Your task to perform on an android device: Open privacy settings Image 0: 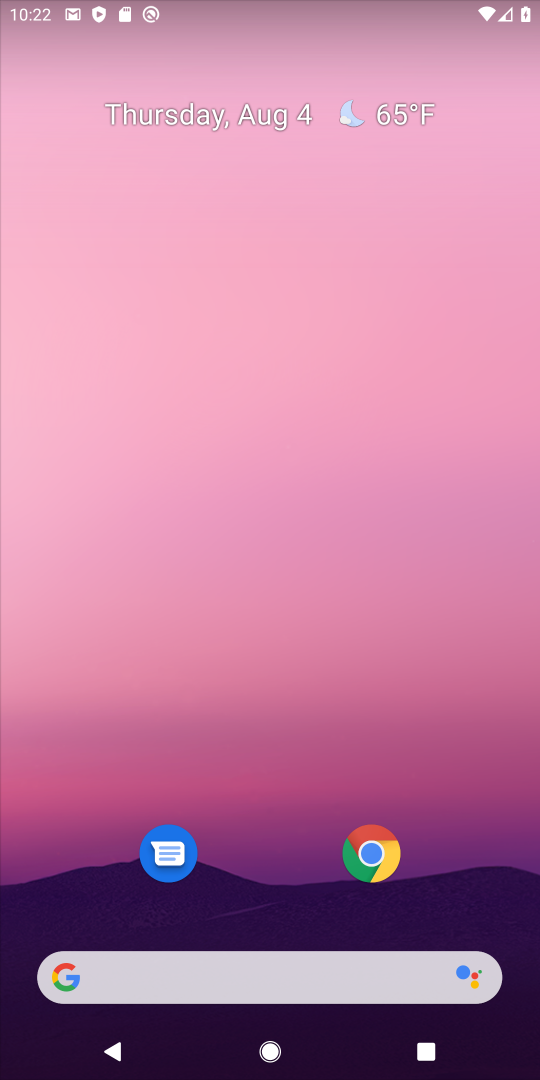
Step 0: drag from (297, 923) to (275, 248)
Your task to perform on an android device: Open privacy settings Image 1: 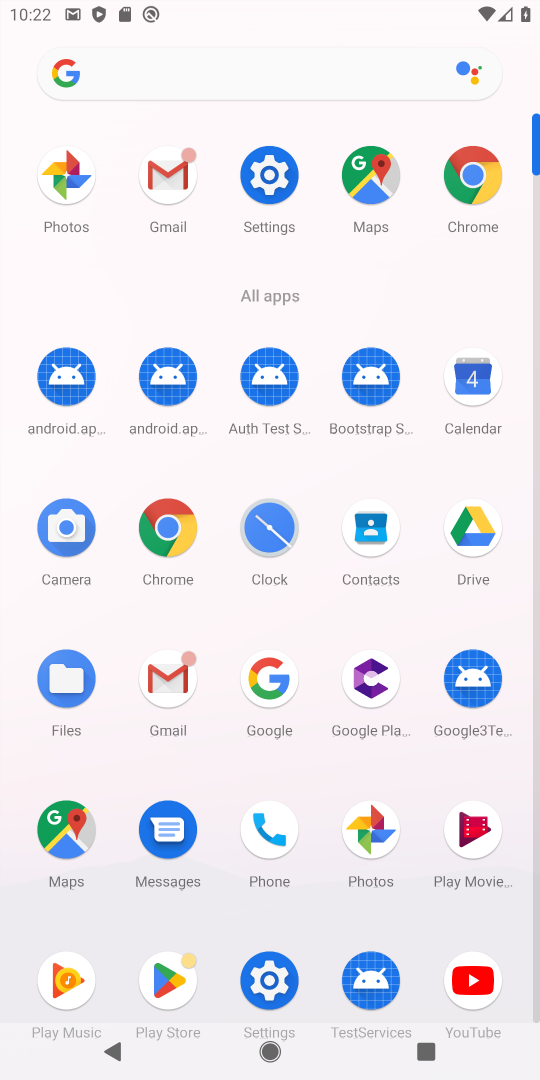
Step 1: click (264, 971)
Your task to perform on an android device: Open privacy settings Image 2: 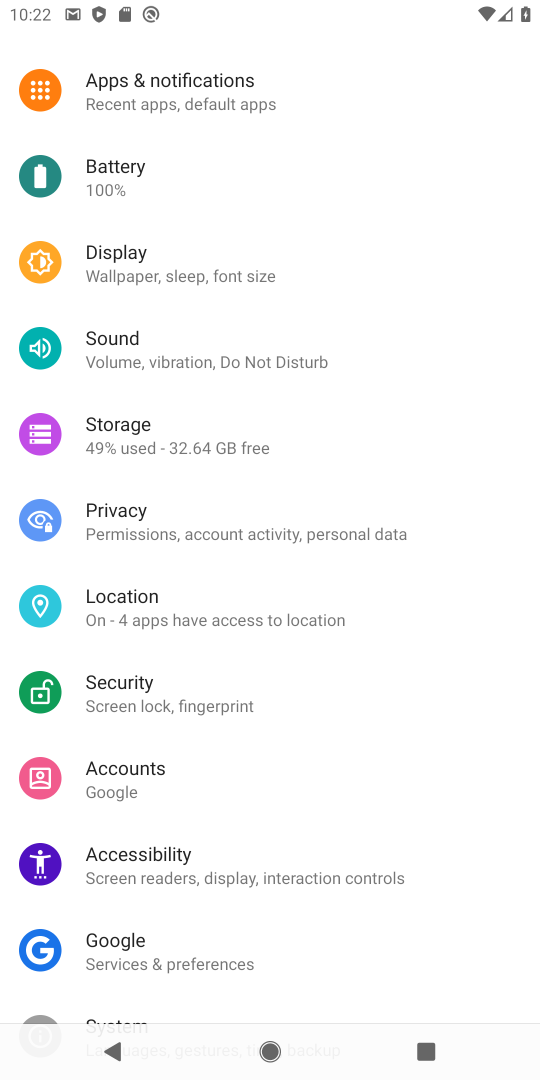
Step 2: click (164, 506)
Your task to perform on an android device: Open privacy settings Image 3: 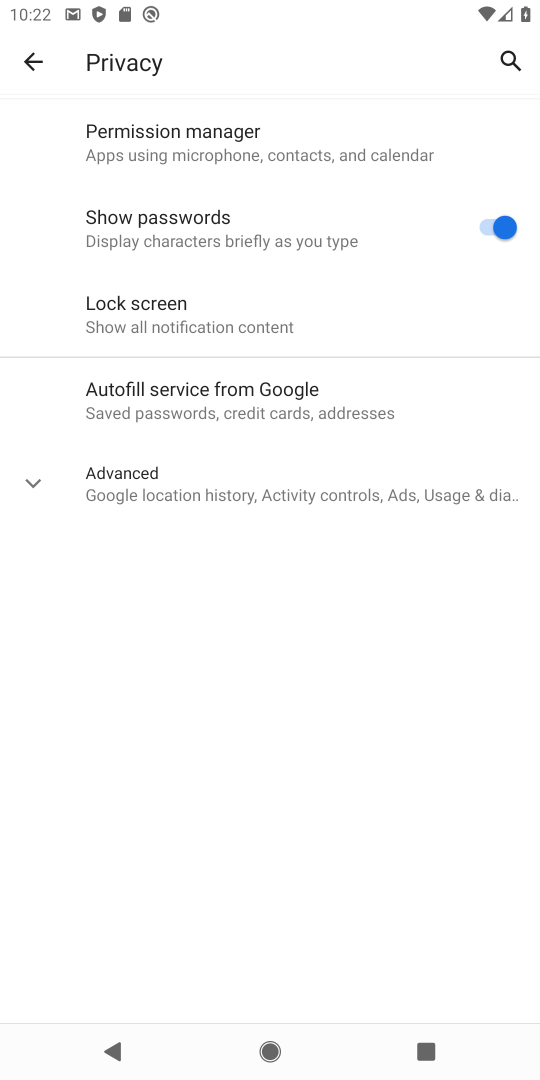
Step 3: click (166, 502)
Your task to perform on an android device: Open privacy settings Image 4: 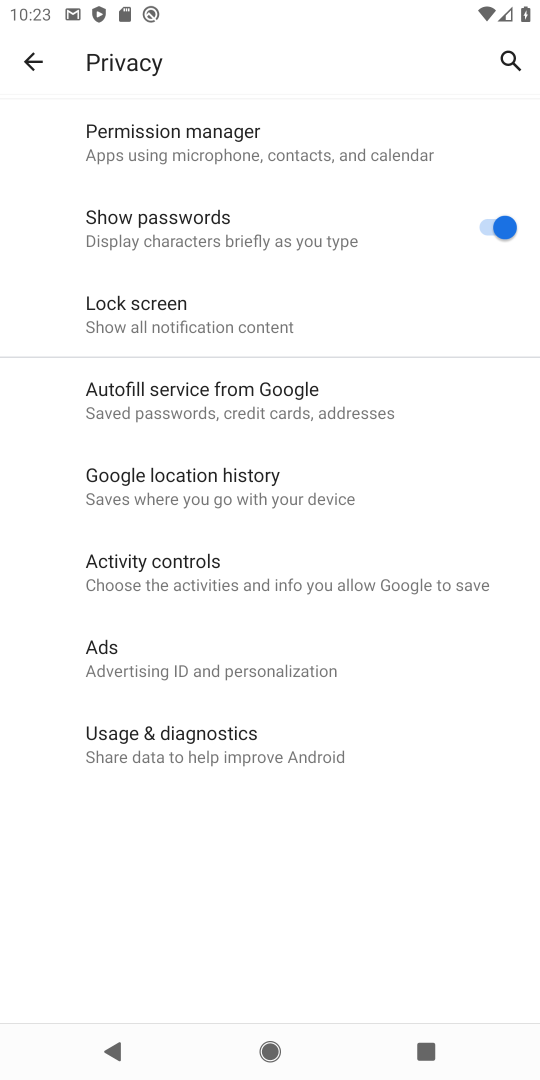
Step 4: task complete